Your task to perform on an android device: Open Chrome and go to settings Image 0: 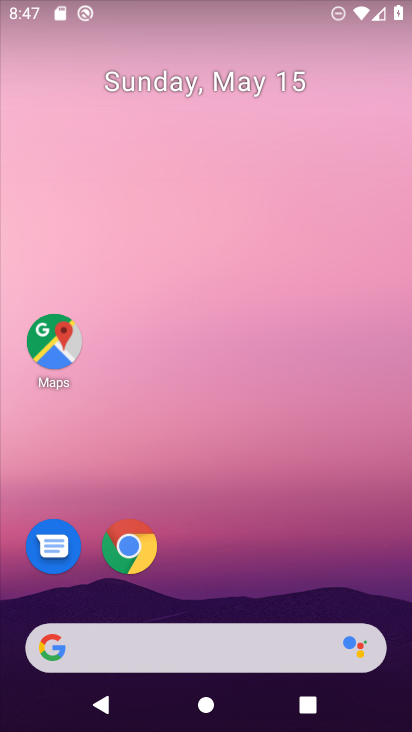
Step 0: click (135, 530)
Your task to perform on an android device: Open Chrome and go to settings Image 1: 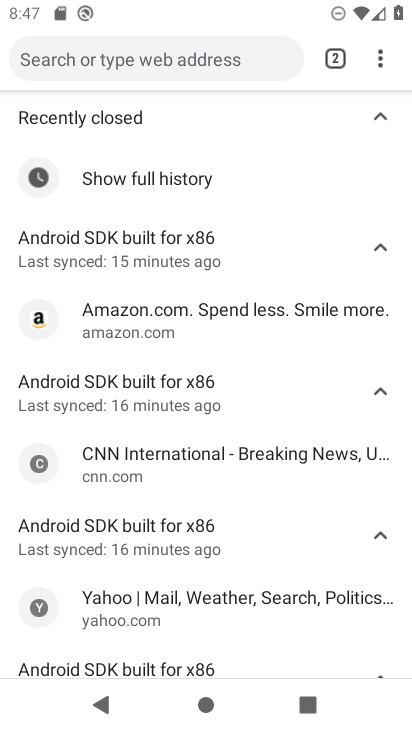
Step 1: click (377, 57)
Your task to perform on an android device: Open Chrome and go to settings Image 2: 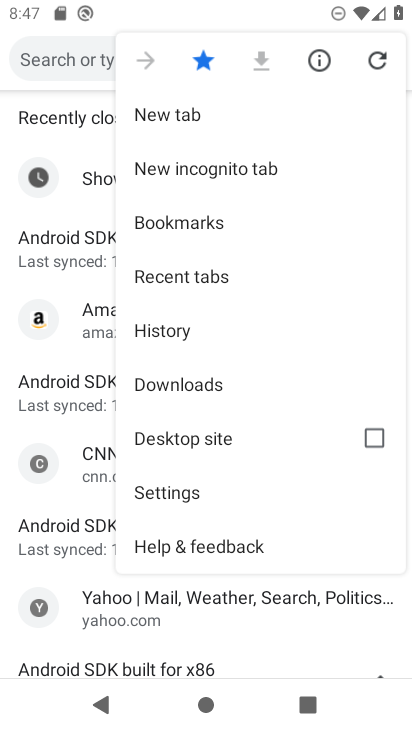
Step 2: click (279, 498)
Your task to perform on an android device: Open Chrome and go to settings Image 3: 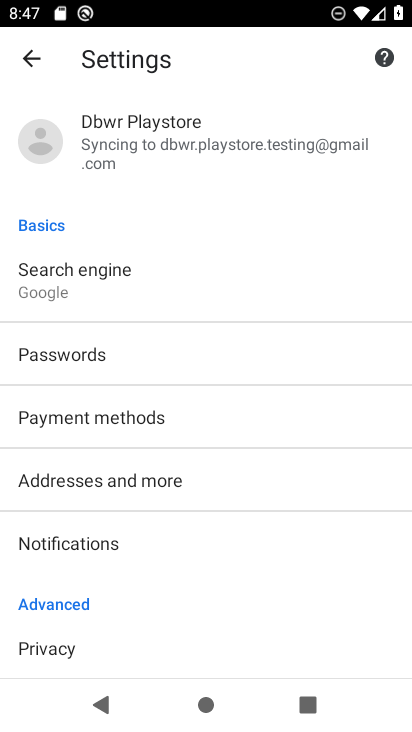
Step 3: task complete